Your task to perform on an android device: open chrome and create a bookmark for the current page Image 0: 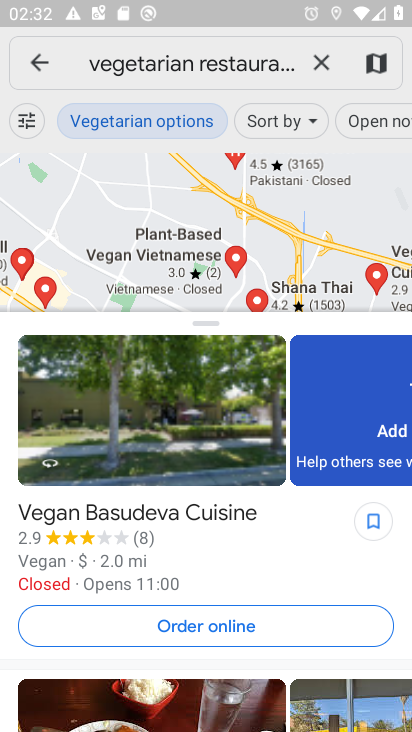
Step 0: press home button
Your task to perform on an android device: open chrome and create a bookmark for the current page Image 1: 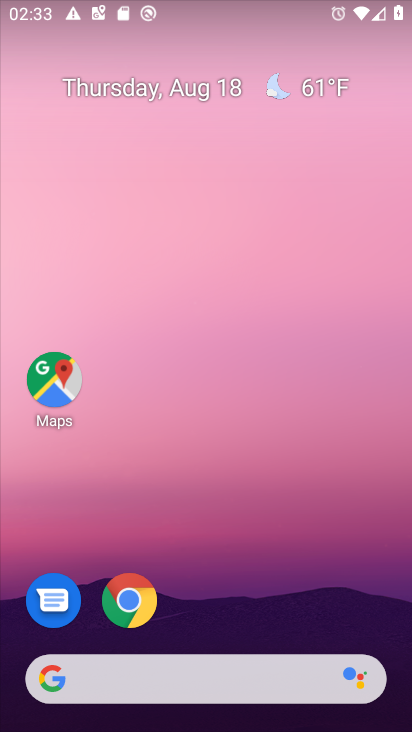
Step 1: press home button
Your task to perform on an android device: open chrome and create a bookmark for the current page Image 2: 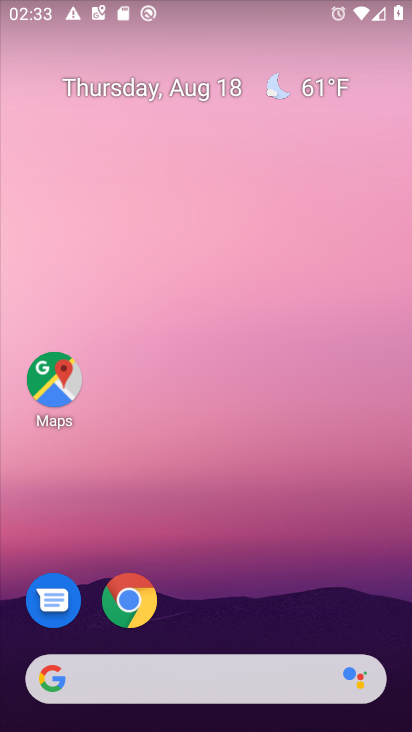
Step 2: click (129, 596)
Your task to perform on an android device: open chrome and create a bookmark for the current page Image 3: 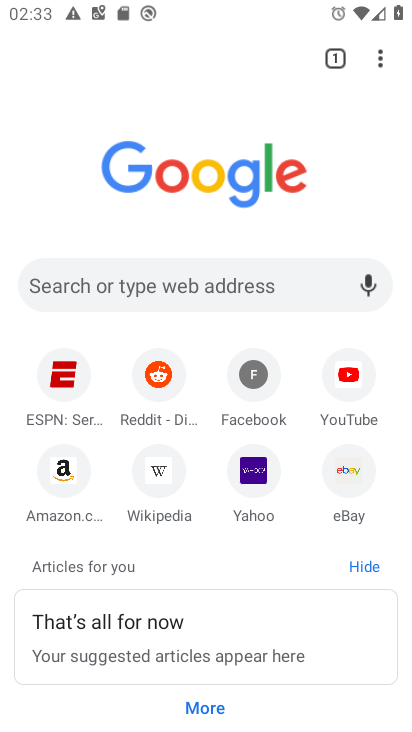
Step 3: drag from (381, 51) to (176, 225)
Your task to perform on an android device: open chrome and create a bookmark for the current page Image 4: 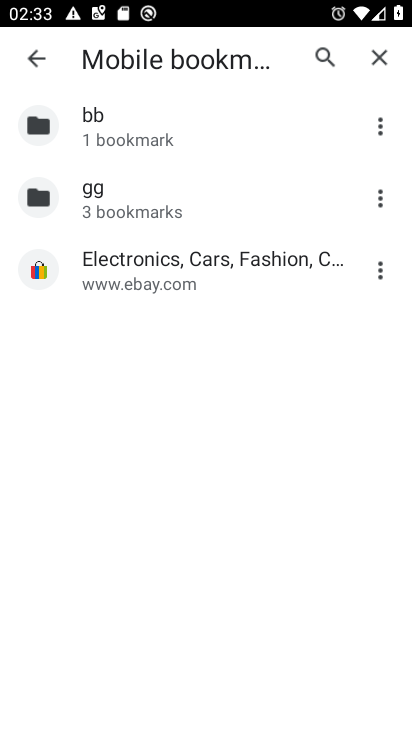
Step 4: click (33, 52)
Your task to perform on an android device: open chrome and create a bookmark for the current page Image 5: 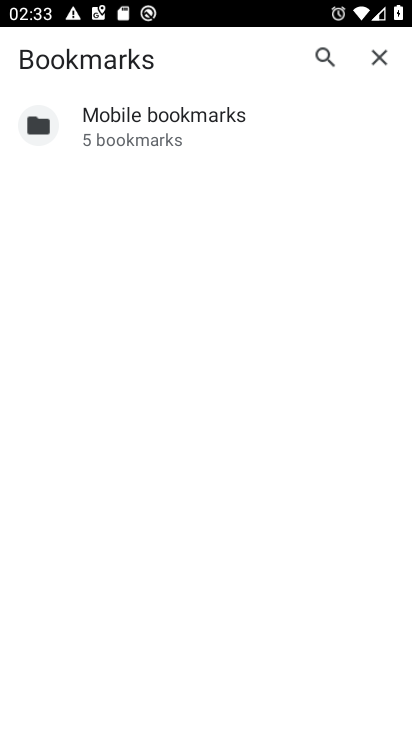
Step 5: click (373, 51)
Your task to perform on an android device: open chrome and create a bookmark for the current page Image 6: 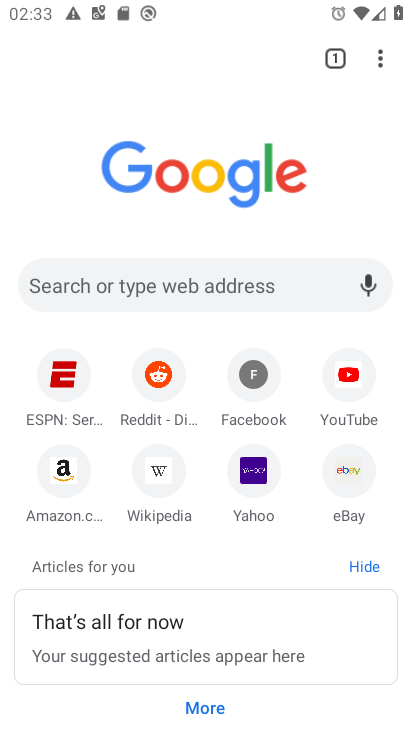
Step 6: task complete